Your task to perform on an android device: Go to location settings Image 0: 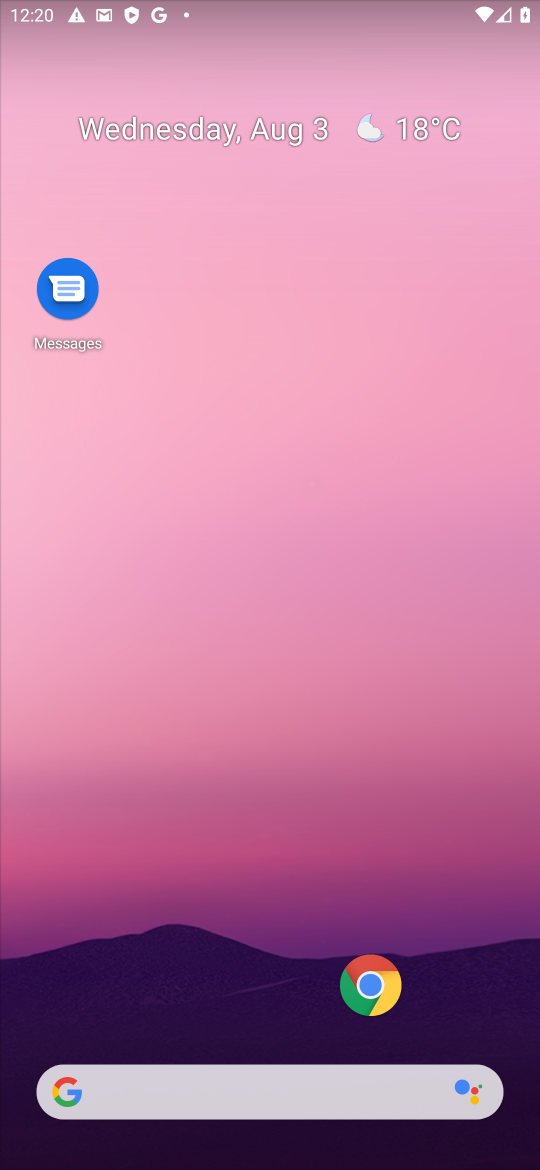
Step 0: drag from (259, 1058) to (229, 294)
Your task to perform on an android device: Go to location settings Image 1: 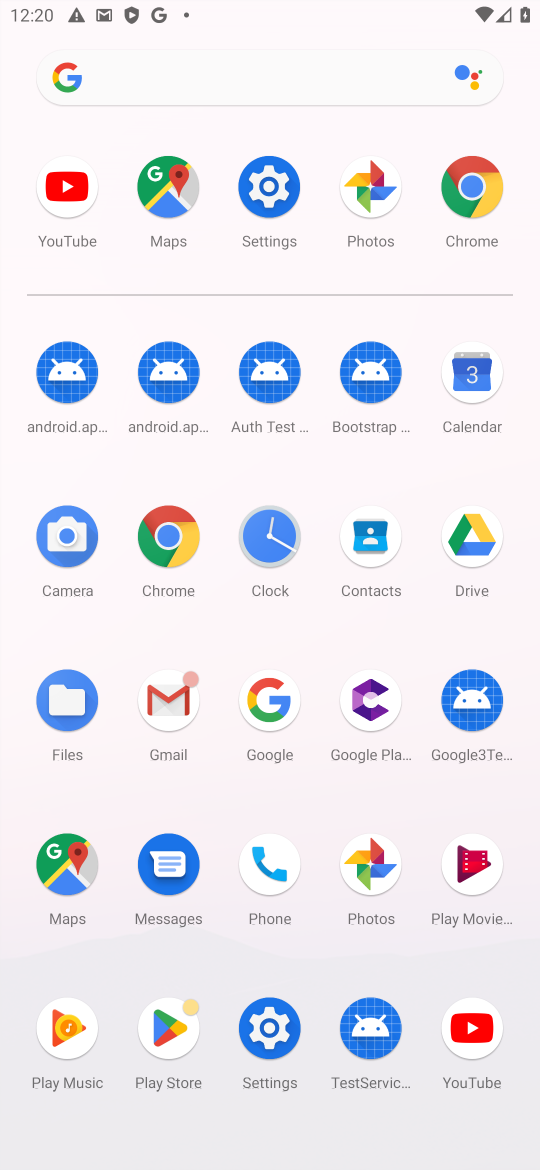
Step 1: click (270, 234)
Your task to perform on an android device: Go to location settings Image 2: 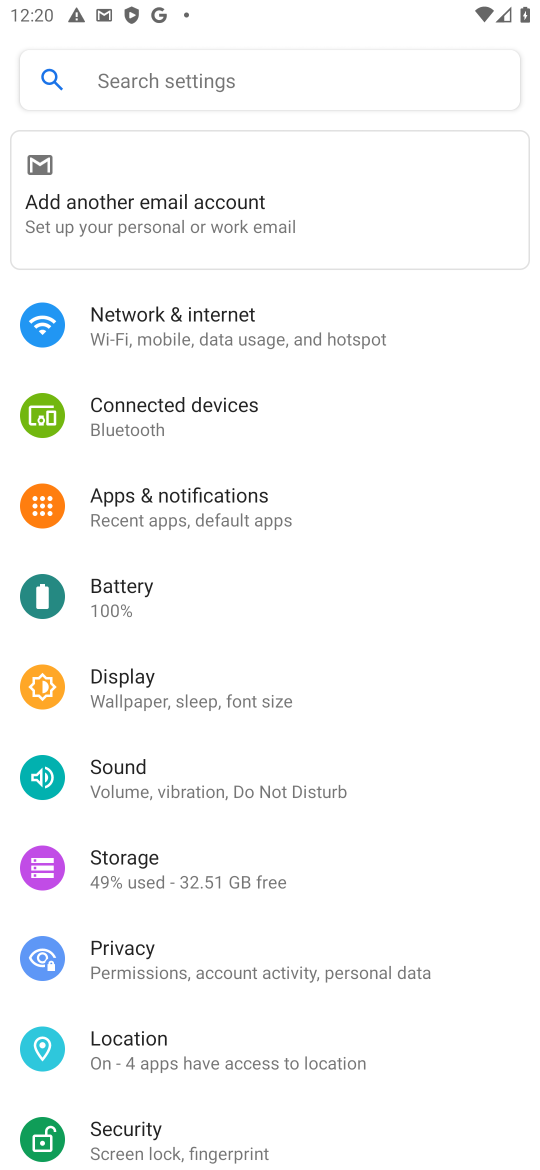
Step 2: task complete